Your task to perform on an android device: Open the calendar app, open the side menu, and click the "Day" option Image 0: 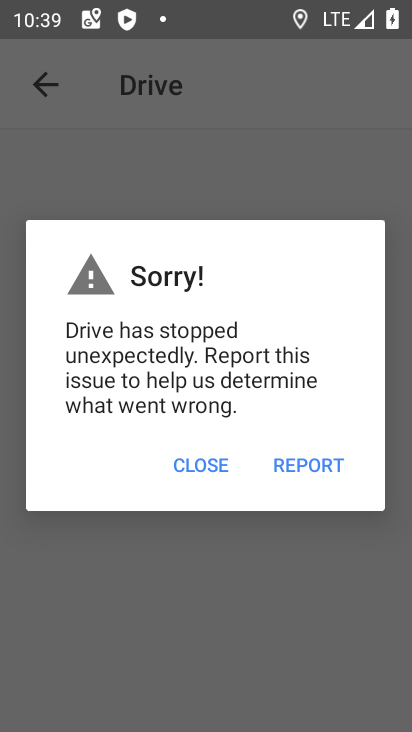
Step 0: press home button
Your task to perform on an android device: Open the calendar app, open the side menu, and click the "Day" option Image 1: 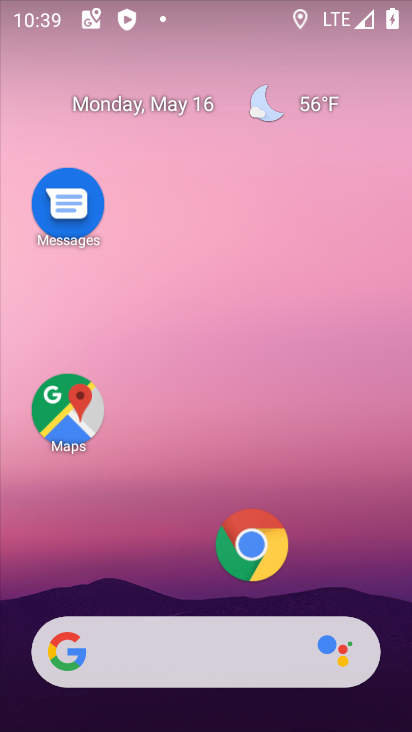
Step 1: drag from (229, 610) to (131, 3)
Your task to perform on an android device: Open the calendar app, open the side menu, and click the "Day" option Image 2: 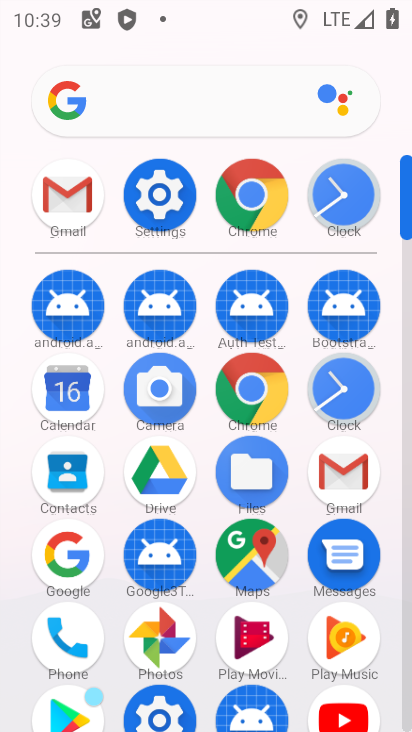
Step 2: click (73, 397)
Your task to perform on an android device: Open the calendar app, open the side menu, and click the "Day" option Image 3: 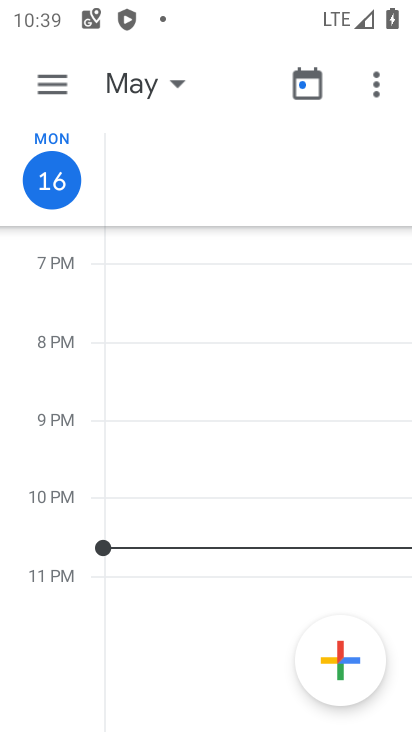
Step 3: click (37, 77)
Your task to perform on an android device: Open the calendar app, open the side menu, and click the "Day" option Image 4: 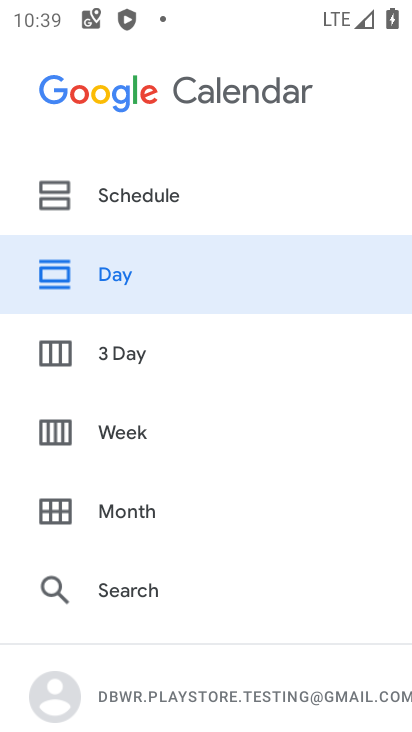
Step 4: click (133, 292)
Your task to perform on an android device: Open the calendar app, open the side menu, and click the "Day" option Image 5: 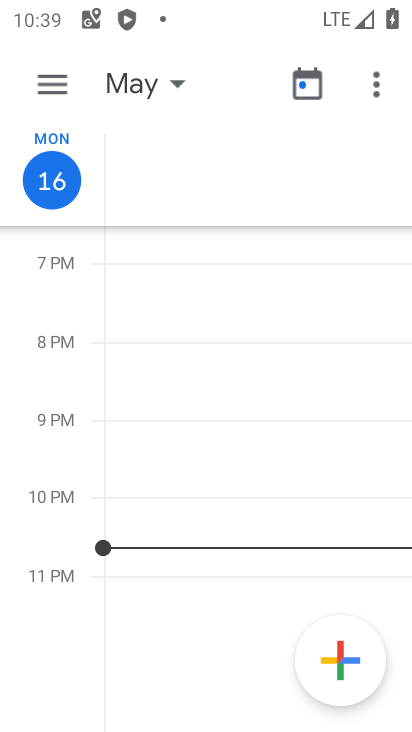
Step 5: task complete